Your task to perform on an android device: Open the map Image 0: 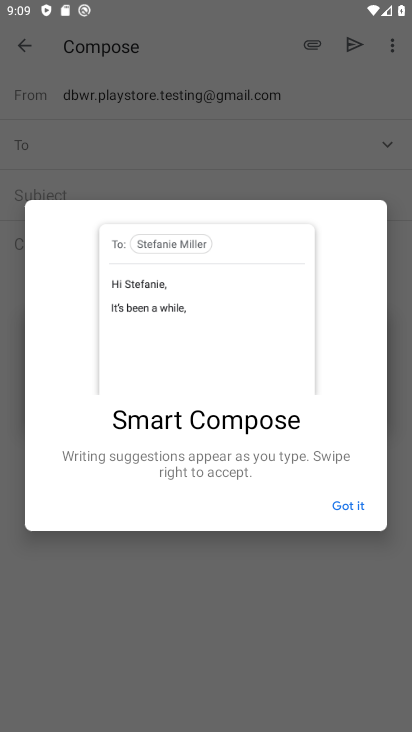
Step 0: press home button
Your task to perform on an android device: Open the map Image 1: 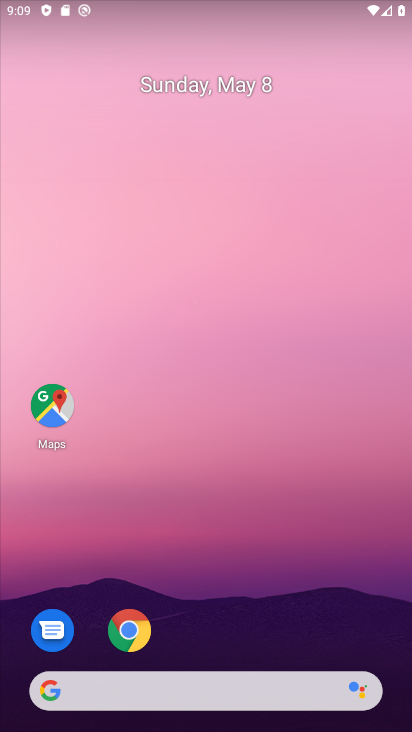
Step 1: click (49, 404)
Your task to perform on an android device: Open the map Image 2: 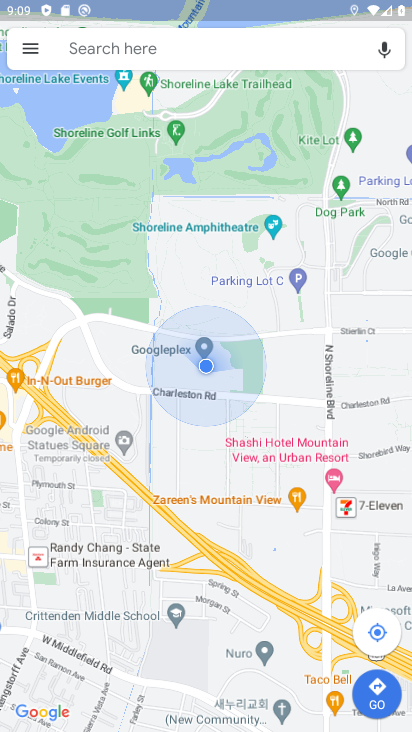
Step 2: task complete